Your task to perform on an android device: turn off wifi Image 0: 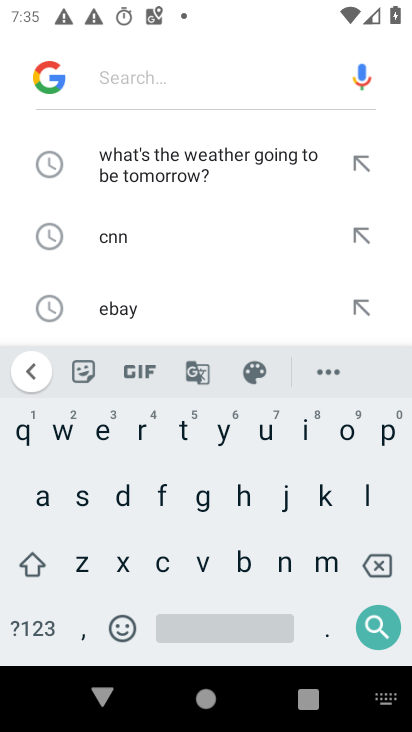
Step 0: press home button
Your task to perform on an android device: turn off wifi Image 1: 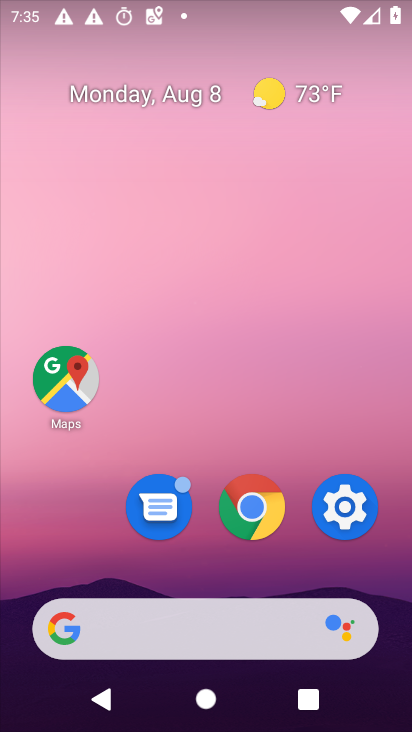
Step 1: click (324, 526)
Your task to perform on an android device: turn off wifi Image 2: 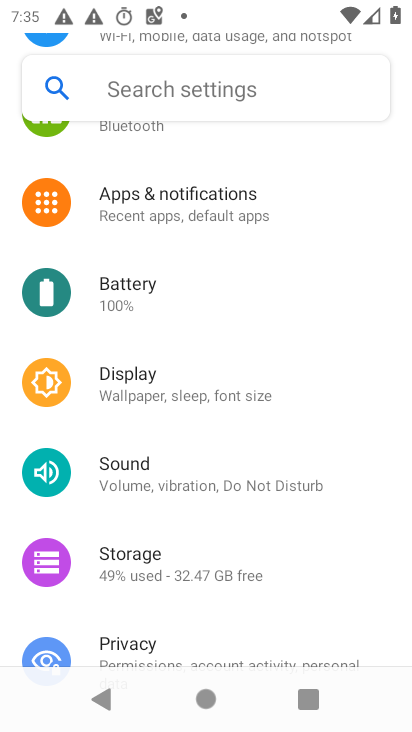
Step 2: drag from (171, 304) to (250, 507)
Your task to perform on an android device: turn off wifi Image 3: 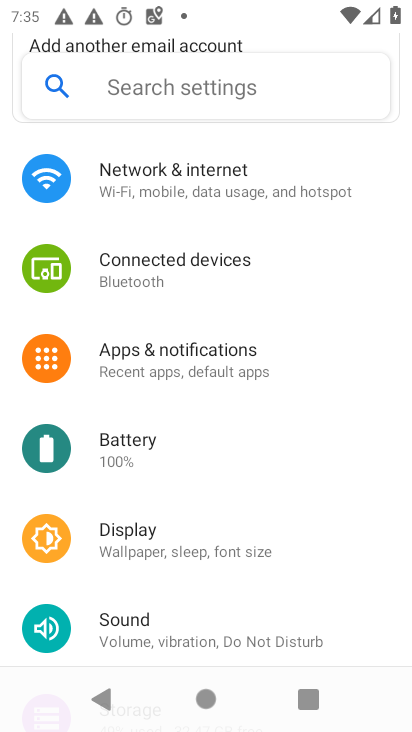
Step 3: click (218, 186)
Your task to perform on an android device: turn off wifi Image 4: 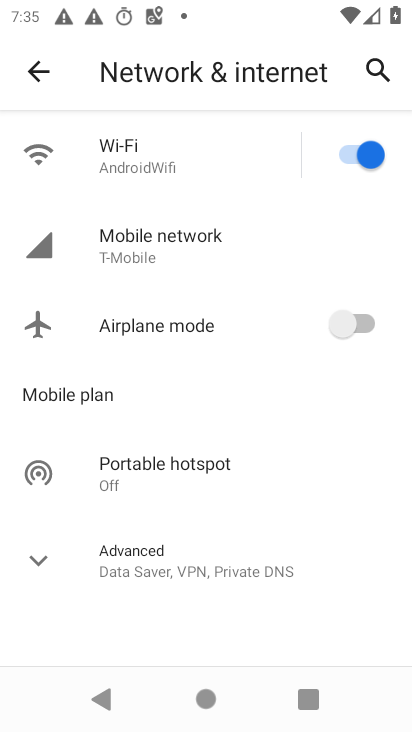
Step 4: click (132, 145)
Your task to perform on an android device: turn off wifi Image 5: 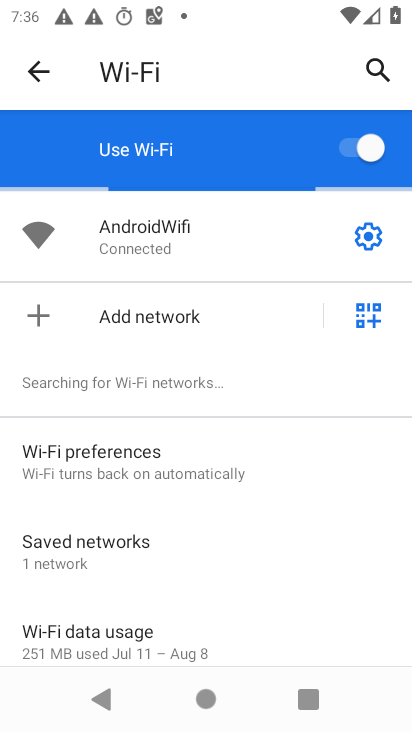
Step 5: click (367, 159)
Your task to perform on an android device: turn off wifi Image 6: 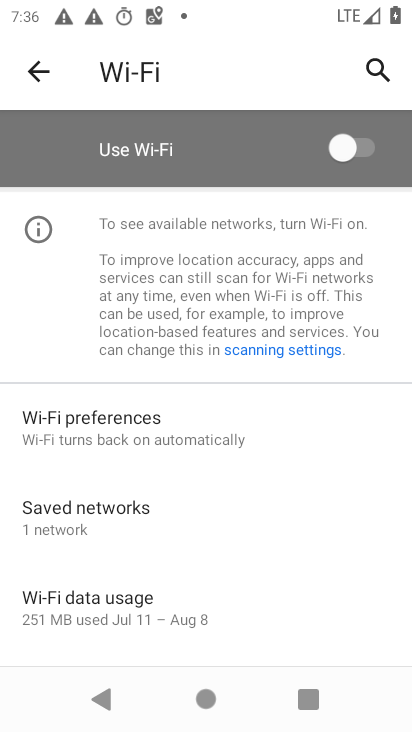
Step 6: task complete